Your task to perform on an android device: Search for sushi restaurants on Maps Image 0: 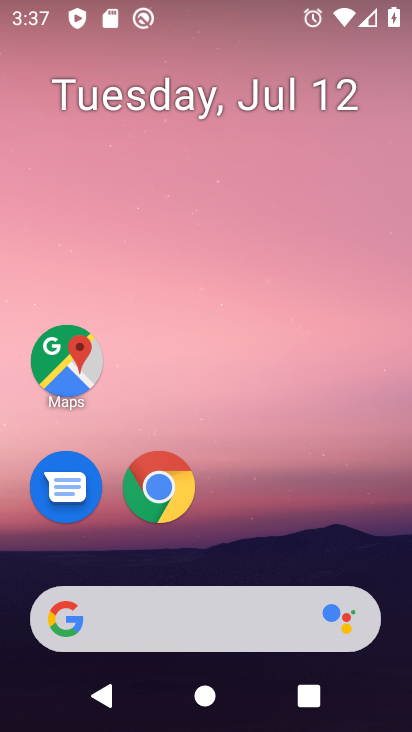
Step 0: drag from (151, 589) to (209, 205)
Your task to perform on an android device: Search for sushi restaurants on Maps Image 1: 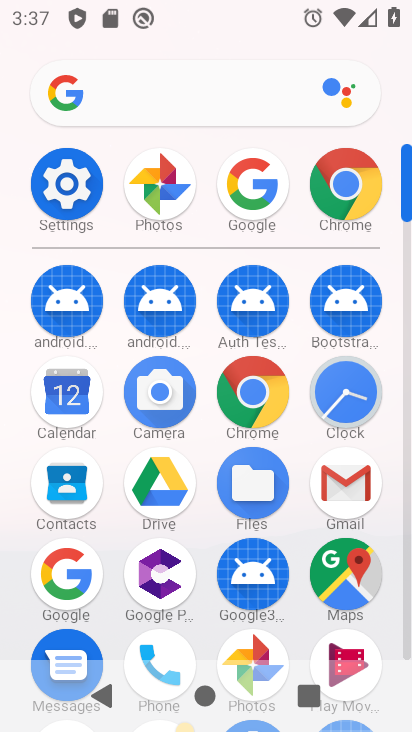
Step 1: click (344, 568)
Your task to perform on an android device: Search for sushi restaurants on Maps Image 2: 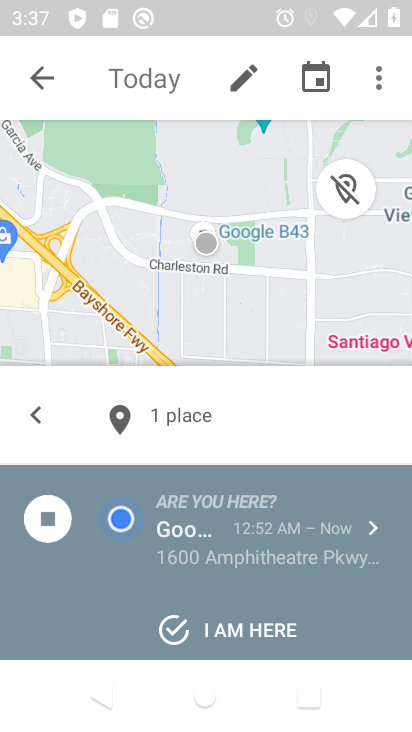
Step 2: click (30, 80)
Your task to perform on an android device: Search for sushi restaurants on Maps Image 3: 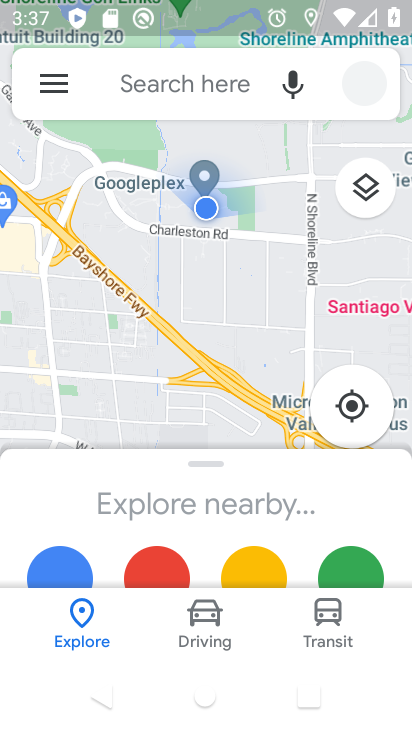
Step 3: click (168, 82)
Your task to perform on an android device: Search for sushi restaurants on Maps Image 4: 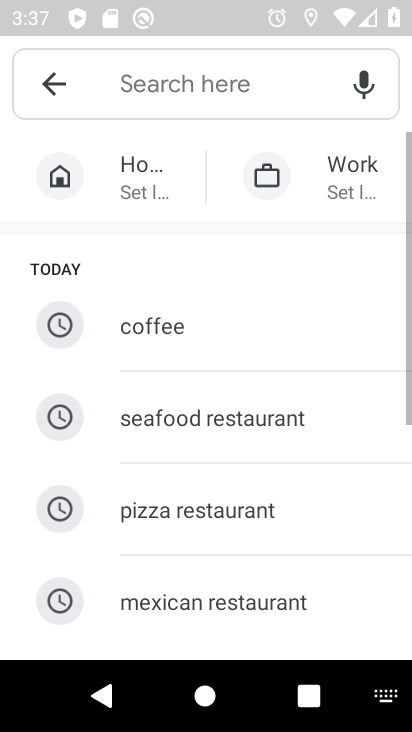
Step 4: drag from (155, 602) to (169, 322)
Your task to perform on an android device: Search for sushi restaurants on Maps Image 5: 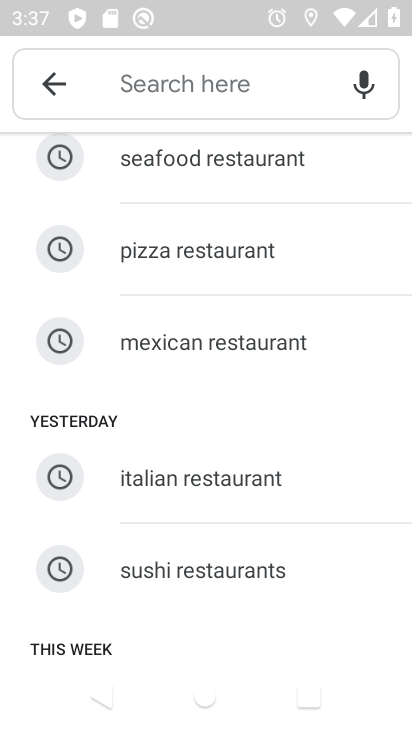
Step 5: click (166, 582)
Your task to perform on an android device: Search for sushi restaurants on Maps Image 6: 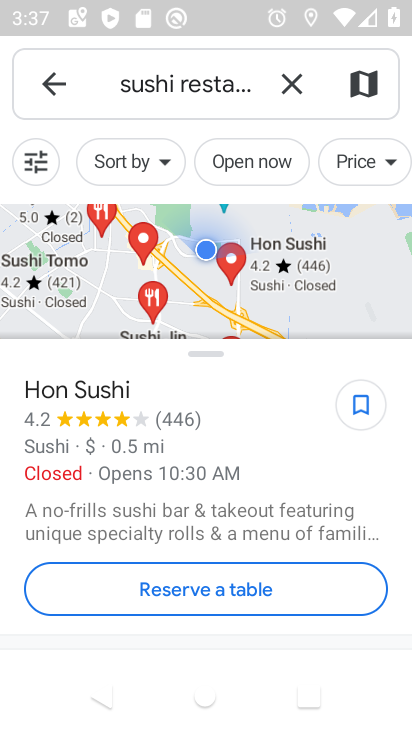
Step 6: task complete